Your task to perform on an android device: add a contact in the contacts app Image 0: 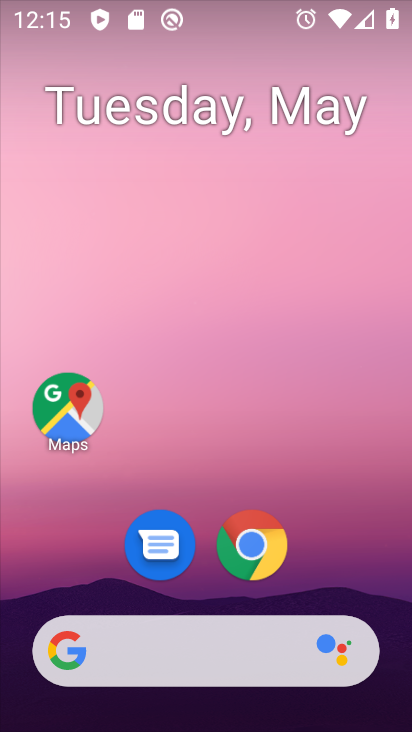
Step 0: drag from (312, 571) to (305, 408)
Your task to perform on an android device: add a contact in the contacts app Image 1: 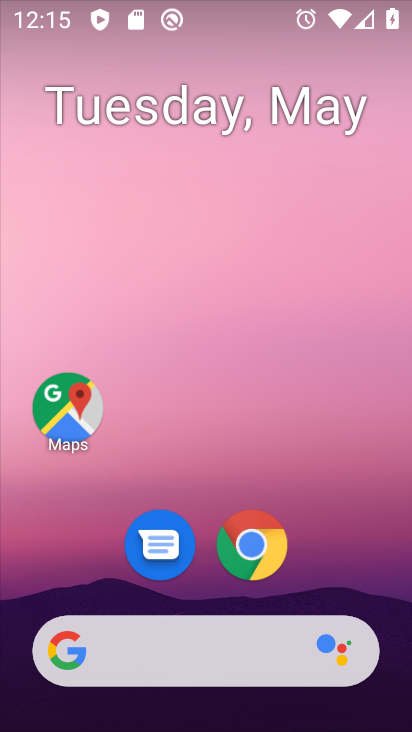
Step 1: drag from (328, 488) to (318, 40)
Your task to perform on an android device: add a contact in the contacts app Image 2: 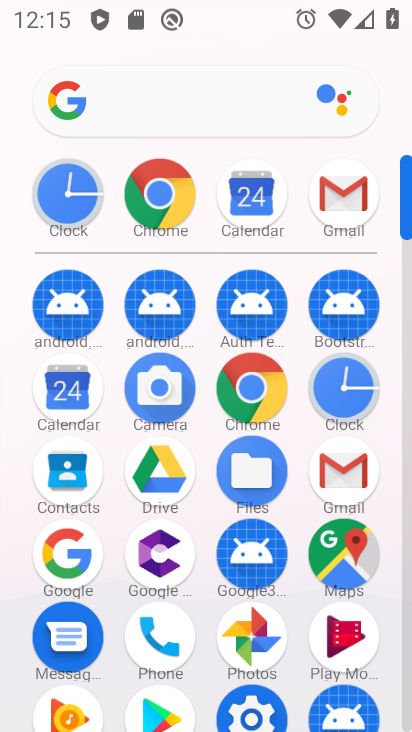
Step 2: click (65, 479)
Your task to perform on an android device: add a contact in the contacts app Image 3: 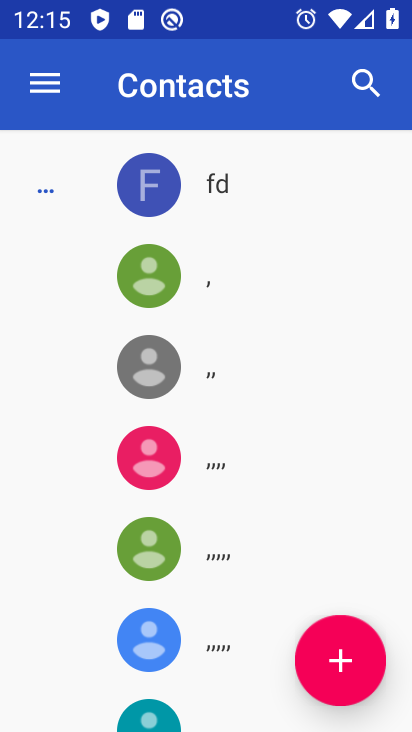
Step 3: click (334, 666)
Your task to perform on an android device: add a contact in the contacts app Image 4: 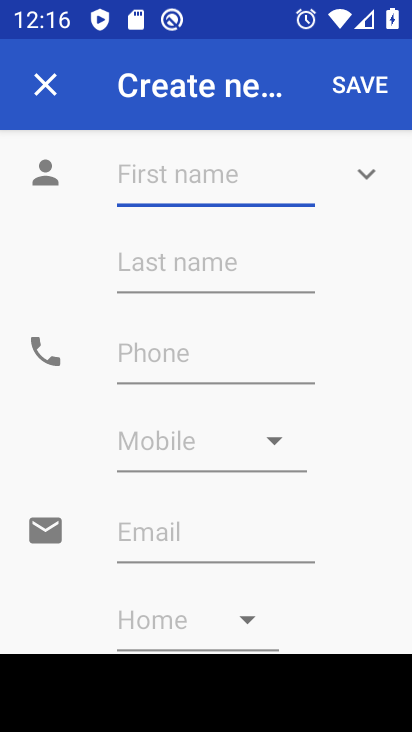
Step 4: type "siddharth"
Your task to perform on an android device: add a contact in the contacts app Image 5: 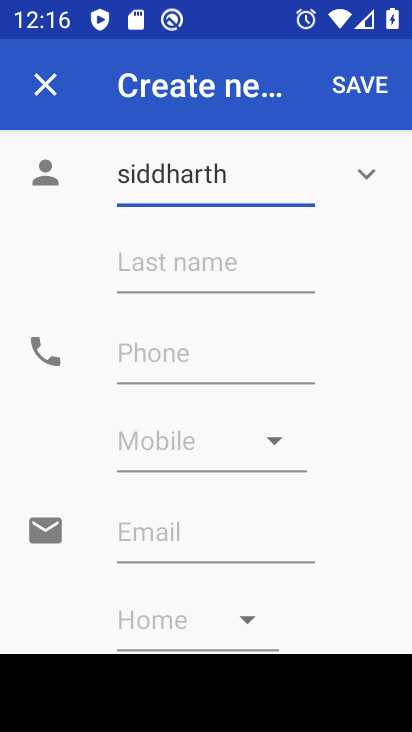
Step 5: type " "
Your task to perform on an android device: add a contact in the contacts app Image 6: 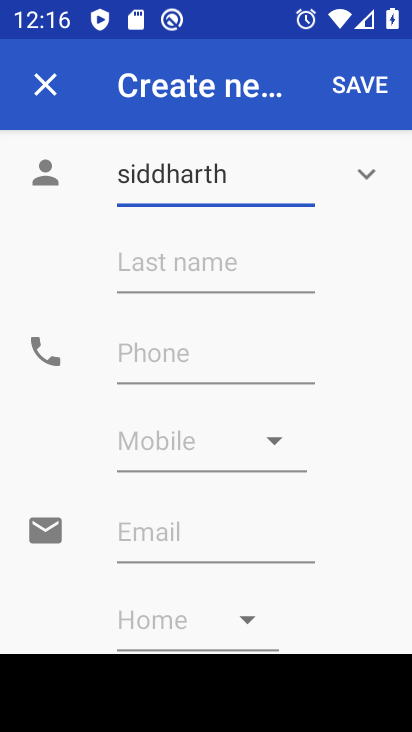
Step 6: click (137, 348)
Your task to perform on an android device: add a contact in the contacts app Image 7: 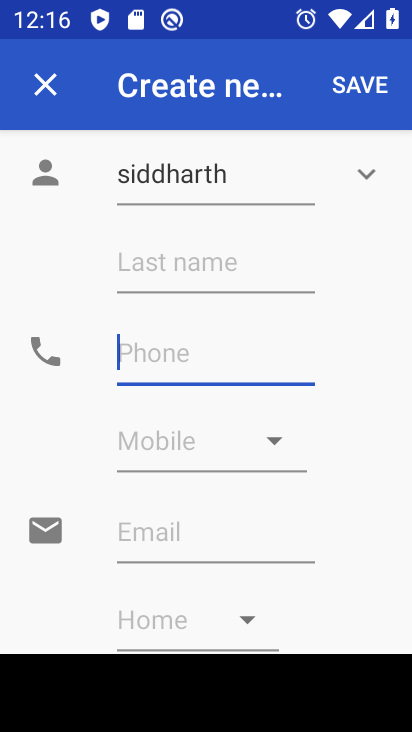
Step 7: click (137, 348)
Your task to perform on an android device: add a contact in the contacts app Image 8: 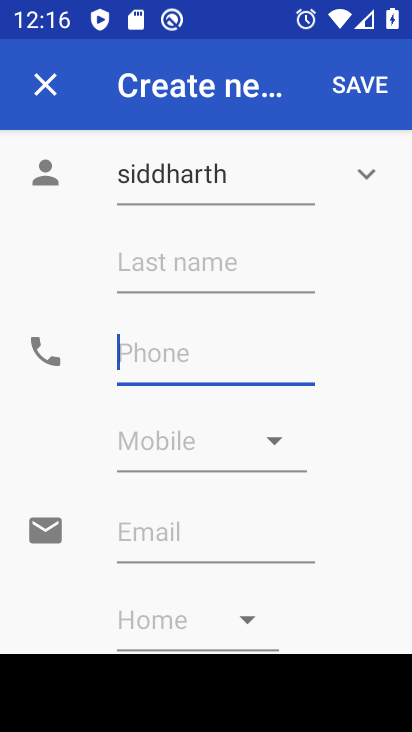
Step 8: type "90546788"
Your task to perform on an android device: add a contact in the contacts app Image 9: 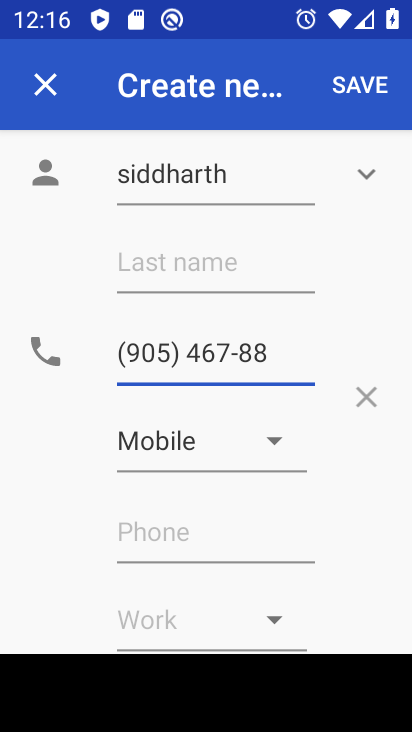
Step 9: click (361, 78)
Your task to perform on an android device: add a contact in the contacts app Image 10: 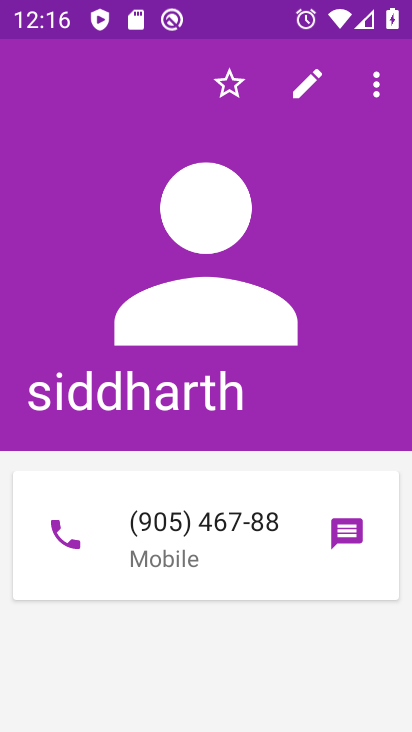
Step 10: task complete